Your task to perform on an android device: turn off improve location accuracy Image 0: 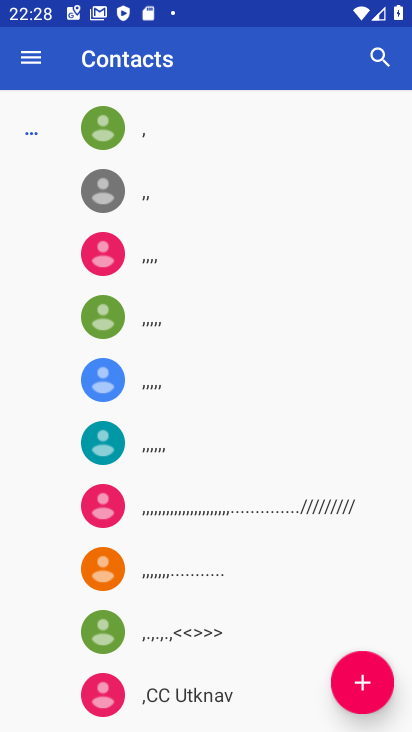
Step 0: press home button
Your task to perform on an android device: turn off improve location accuracy Image 1: 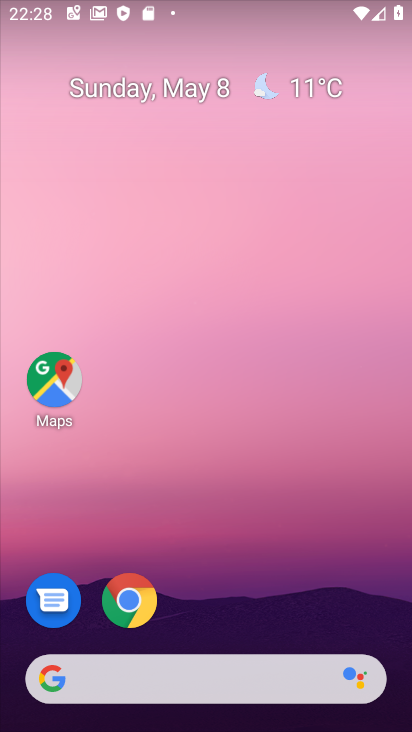
Step 1: drag from (192, 615) to (272, 11)
Your task to perform on an android device: turn off improve location accuracy Image 2: 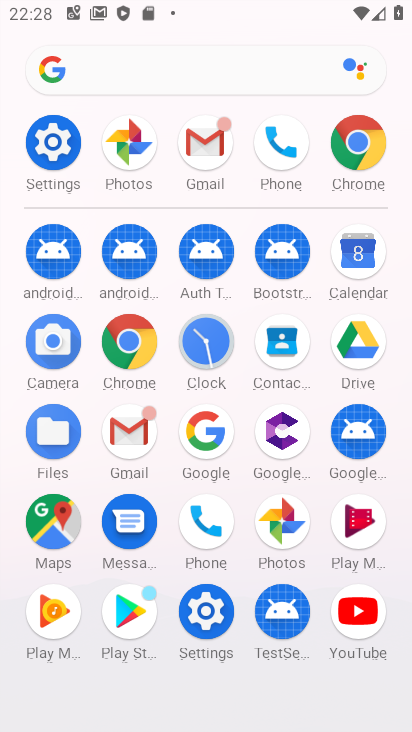
Step 2: click (63, 150)
Your task to perform on an android device: turn off improve location accuracy Image 3: 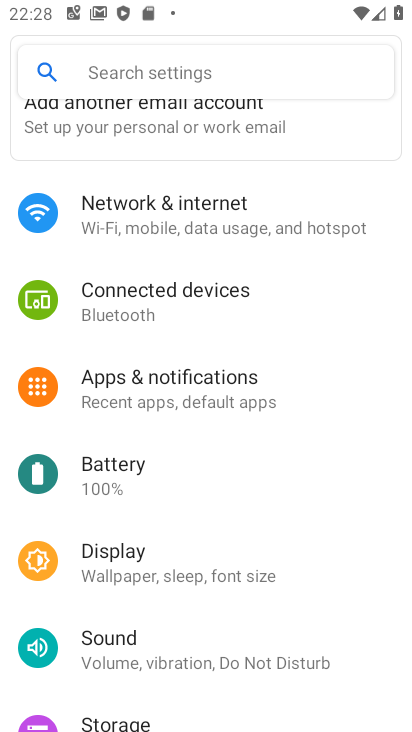
Step 3: drag from (108, 579) to (147, 155)
Your task to perform on an android device: turn off improve location accuracy Image 4: 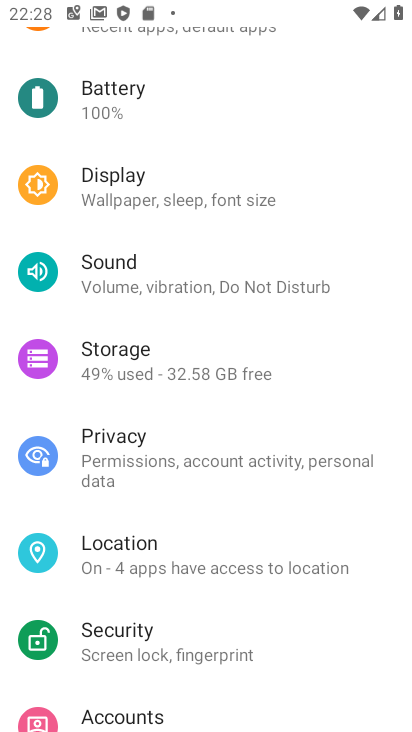
Step 4: click (154, 570)
Your task to perform on an android device: turn off improve location accuracy Image 5: 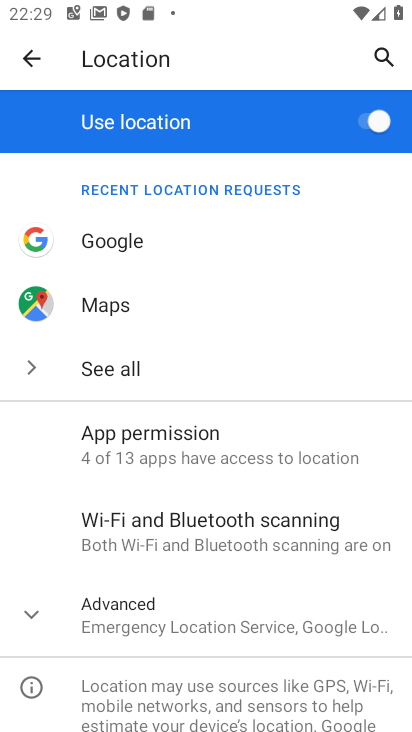
Step 5: drag from (146, 545) to (227, 154)
Your task to perform on an android device: turn off improve location accuracy Image 6: 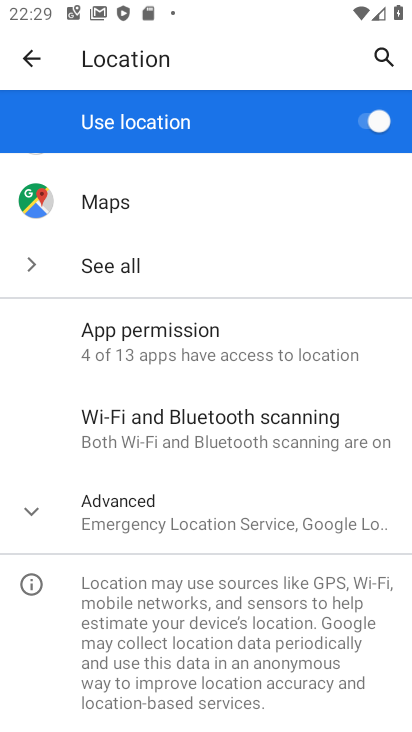
Step 6: click (198, 538)
Your task to perform on an android device: turn off improve location accuracy Image 7: 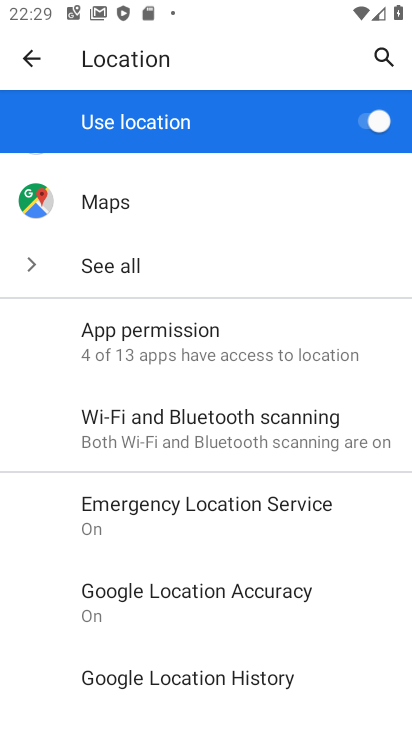
Step 7: click (194, 601)
Your task to perform on an android device: turn off improve location accuracy Image 8: 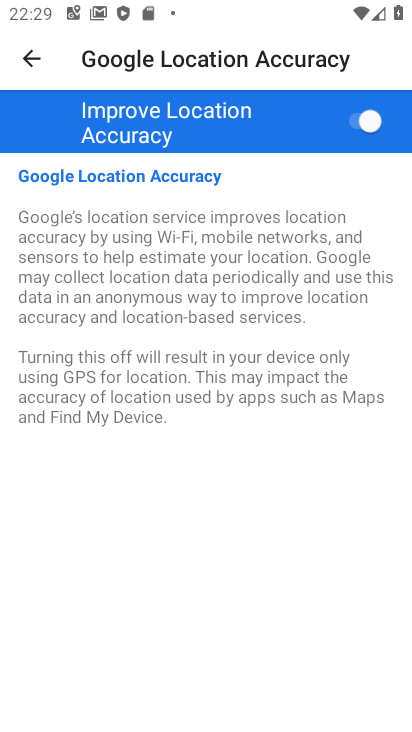
Step 8: click (368, 126)
Your task to perform on an android device: turn off improve location accuracy Image 9: 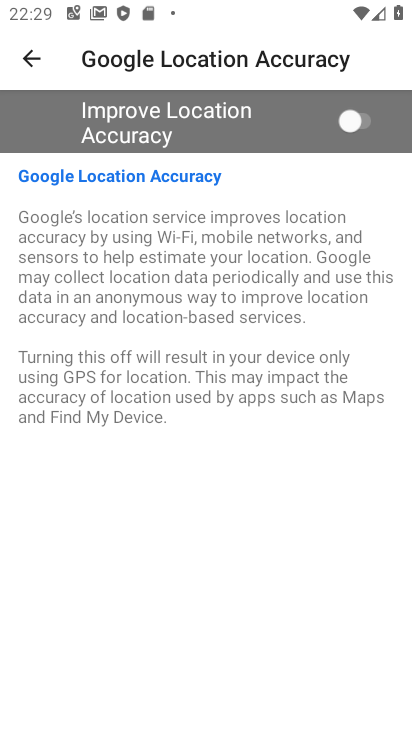
Step 9: task complete